Your task to perform on an android device: Go to Yahoo.com Image 0: 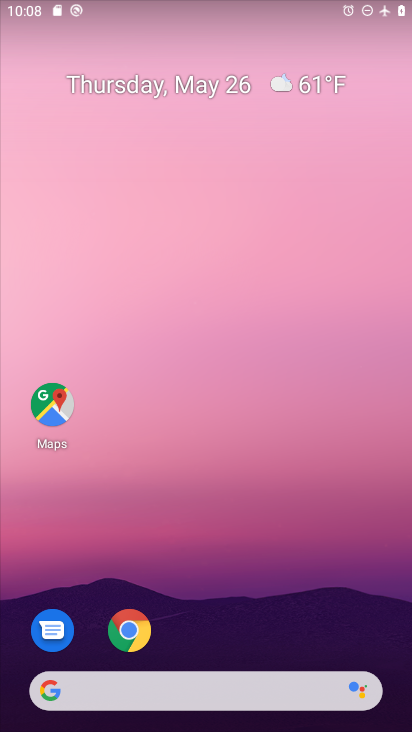
Step 0: click (139, 639)
Your task to perform on an android device: Go to Yahoo.com Image 1: 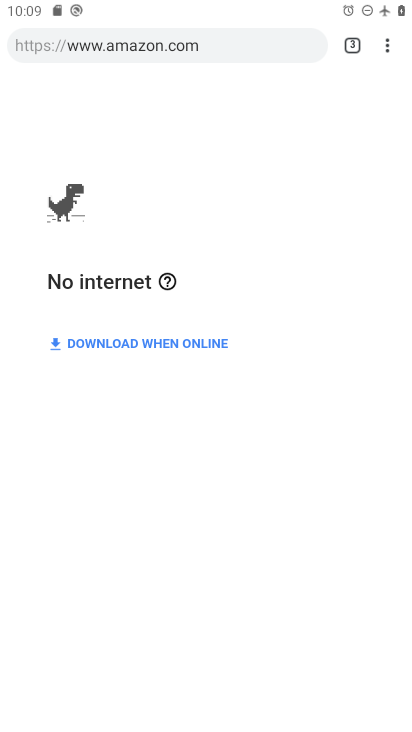
Step 1: click (350, 48)
Your task to perform on an android device: Go to Yahoo.com Image 2: 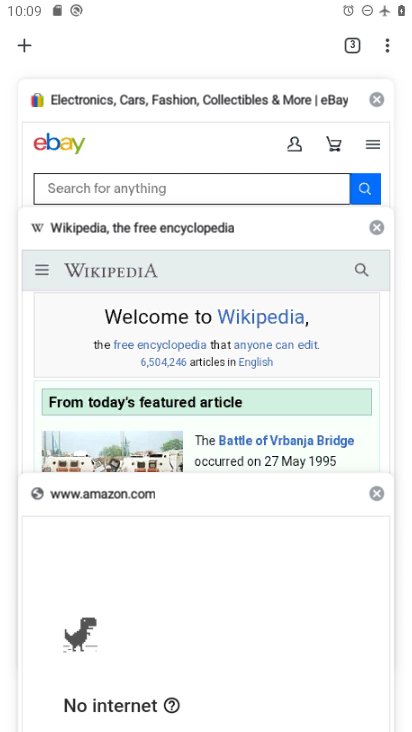
Step 2: click (19, 42)
Your task to perform on an android device: Go to Yahoo.com Image 3: 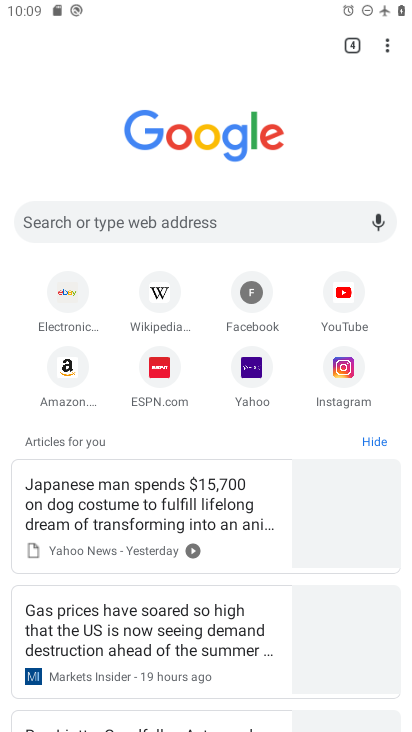
Step 3: click (247, 366)
Your task to perform on an android device: Go to Yahoo.com Image 4: 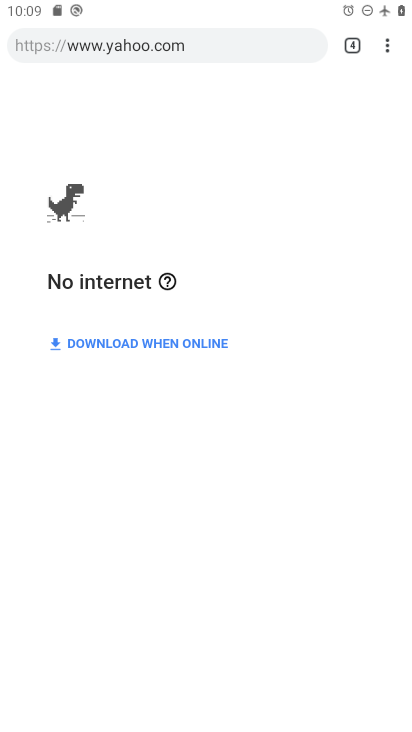
Step 4: task complete